Your task to perform on an android device: set the timer Image 0: 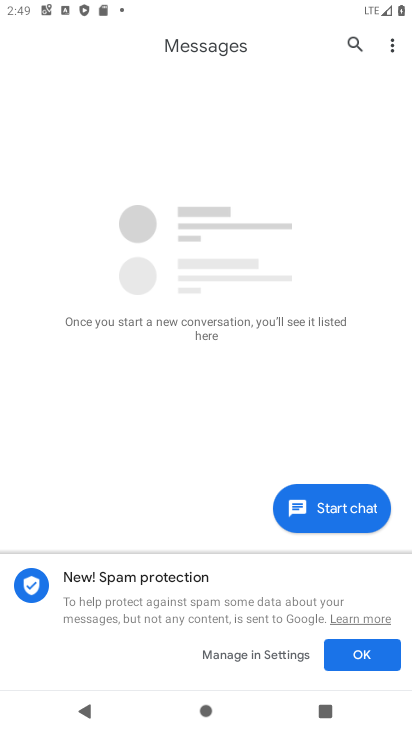
Step 0: press home button
Your task to perform on an android device: set the timer Image 1: 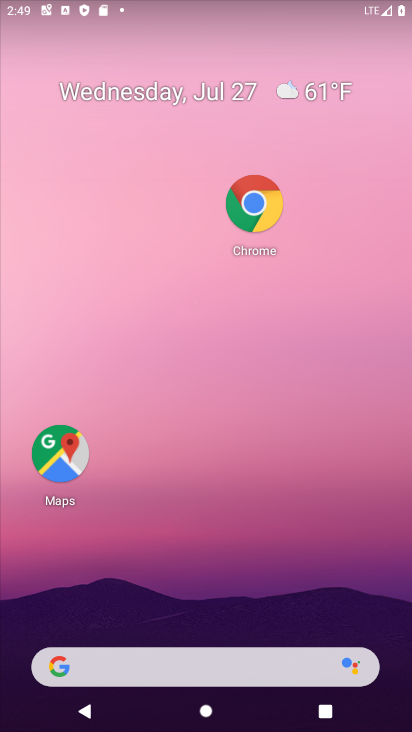
Step 1: drag from (180, 625) to (271, 97)
Your task to perform on an android device: set the timer Image 2: 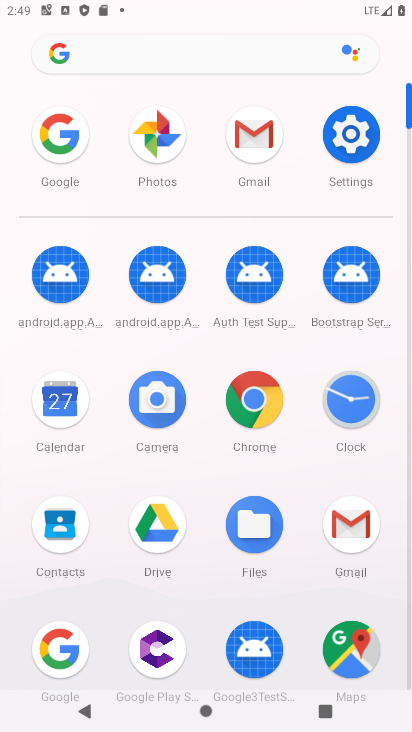
Step 2: click (346, 395)
Your task to perform on an android device: set the timer Image 3: 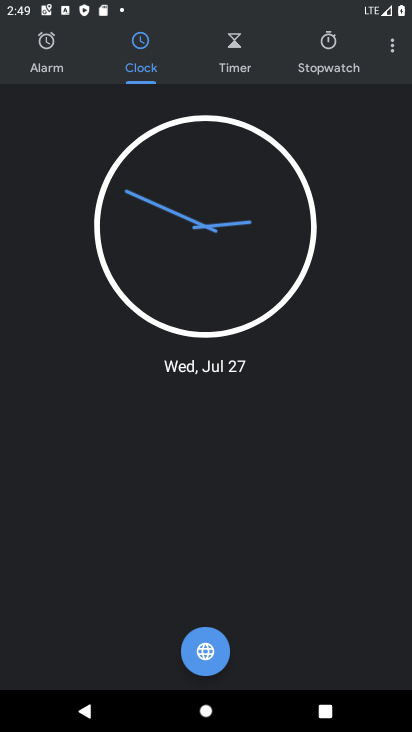
Step 3: click (220, 68)
Your task to perform on an android device: set the timer Image 4: 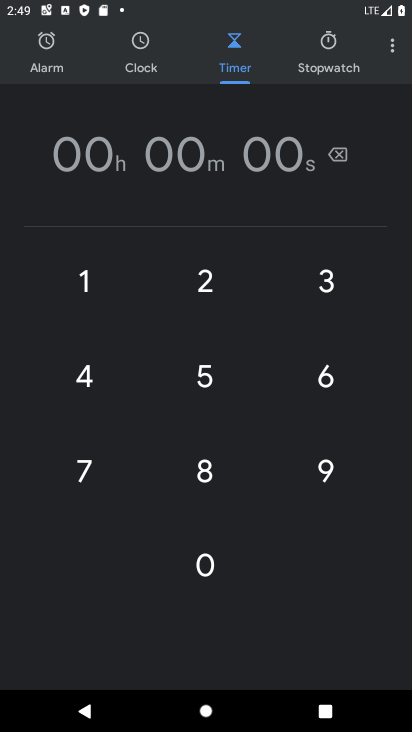
Step 4: type "11"
Your task to perform on an android device: set the timer Image 5: 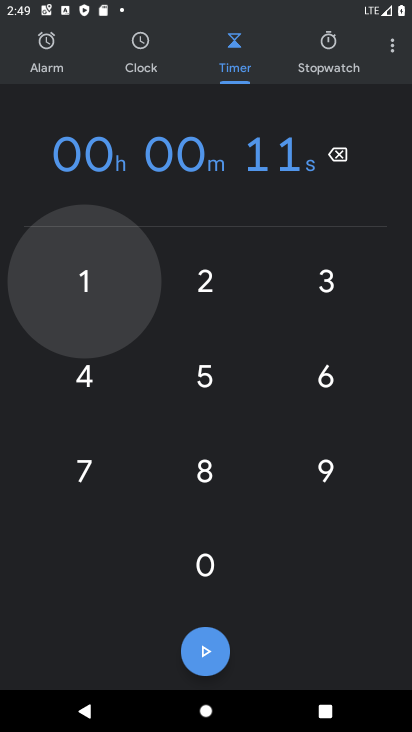
Step 5: drag from (348, 520) to (10, 641)
Your task to perform on an android device: set the timer Image 6: 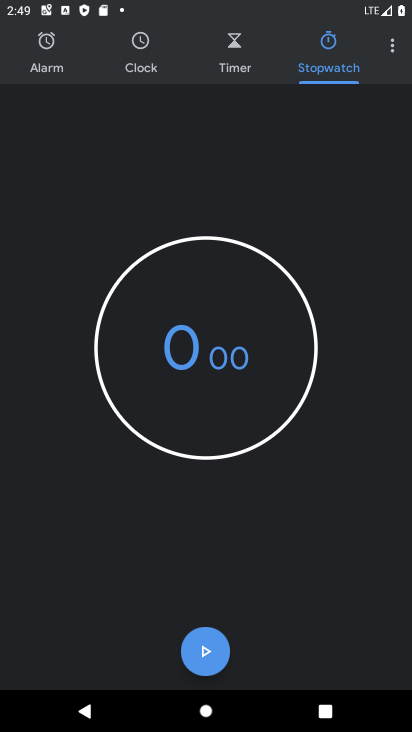
Step 6: click (244, 77)
Your task to perform on an android device: set the timer Image 7: 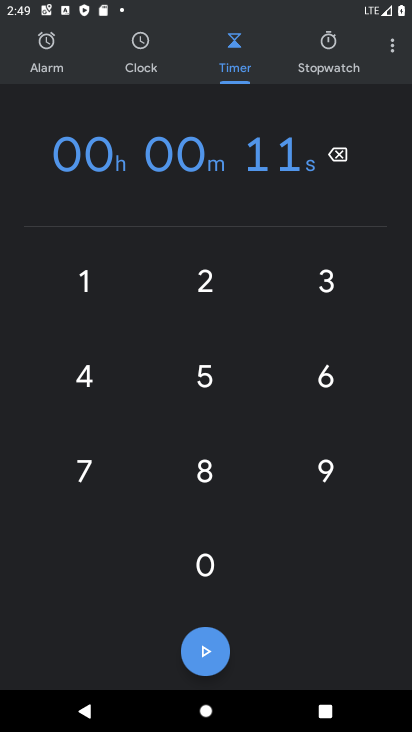
Step 7: click (218, 664)
Your task to perform on an android device: set the timer Image 8: 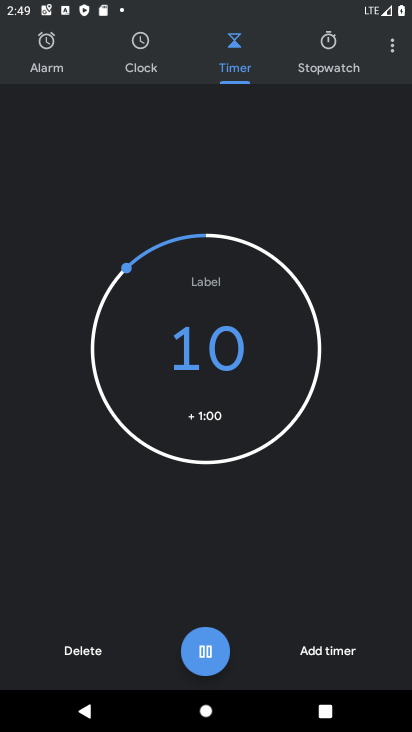
Step 8: task complete